Your task to perform on an android device: open wifi settings Image 0: 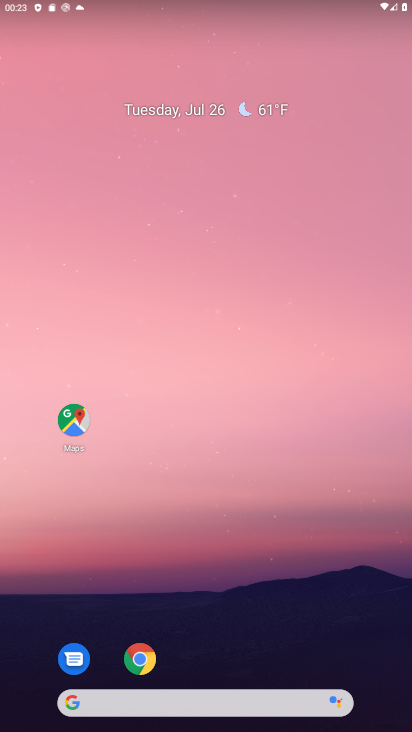
Step 0: drag from (323, 613) to (283, 44)
Your task to perform on an android device: open wifi settings Image 1: 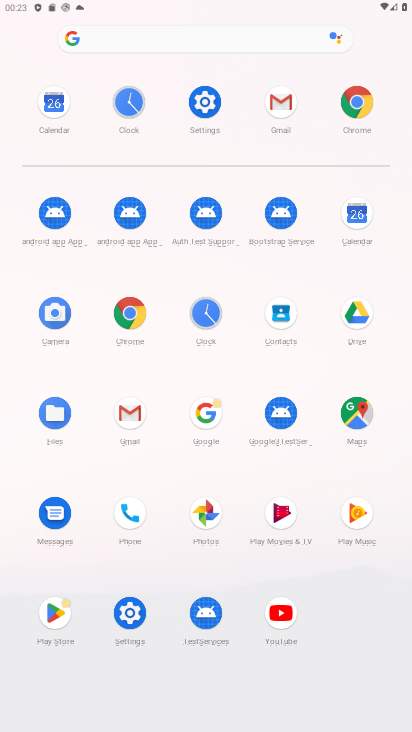
Step 1: click (206, 102)
Your task to perform on an android device: open wifi settings Image 2: 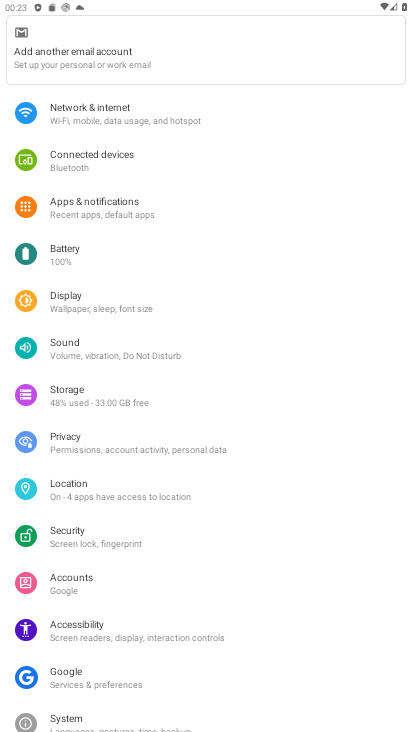
Step 2: click (105, 129)
Your task to perform on an android device: open wifi settings Image 3: 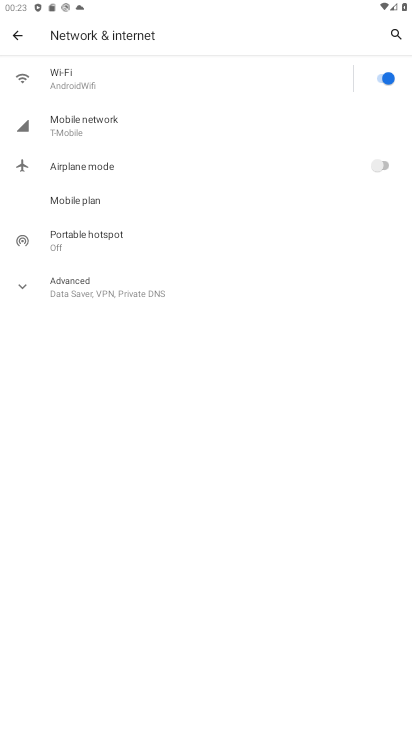
Step 3: click (157, 78)
Your task to perform on an android device: open wifi settings Image 4: 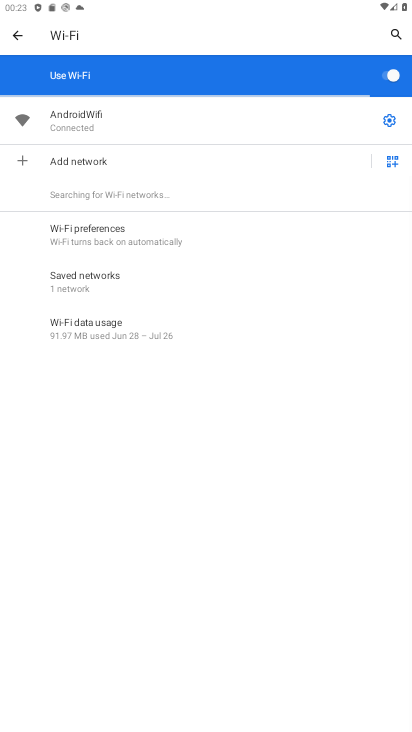
Step 4: click (391, 112)
Your task to perform on an android device: open wifi settings Image 5: 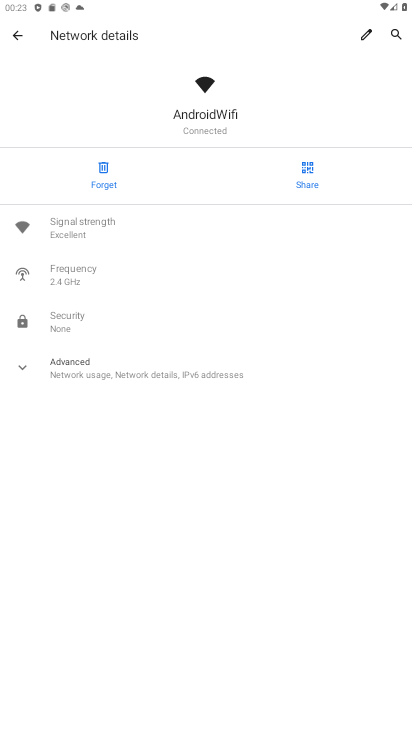
Step 5: task complete